Your task to perform on an android device: check android version Image 0: 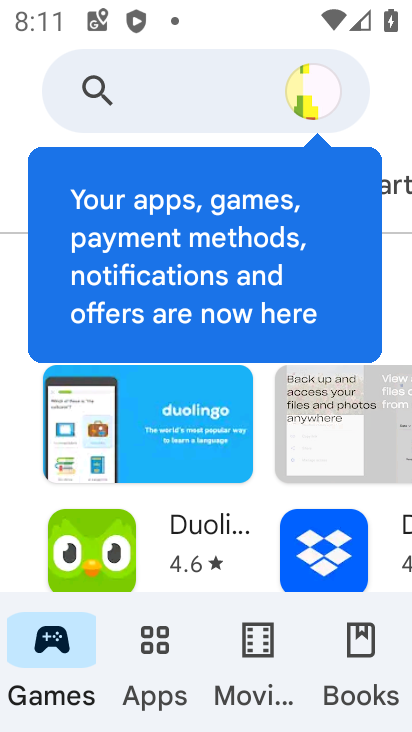
Step 0: press home button
Your task to perform on an android device: check android version Image 1: 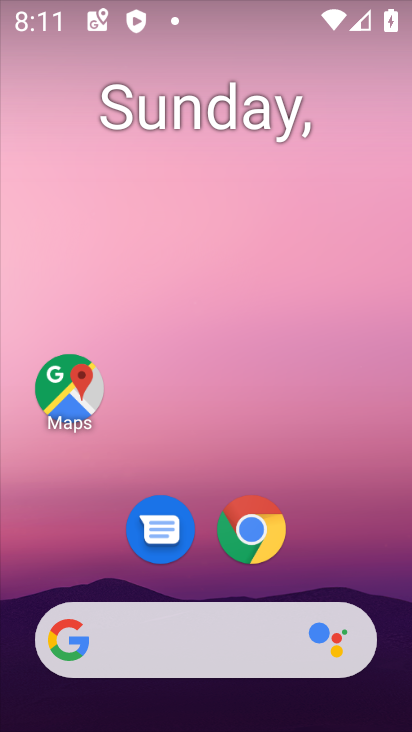
Step 1: drag from (348, 576) to (358, 140)
Your task to perform on an android device: check android version Image 2: 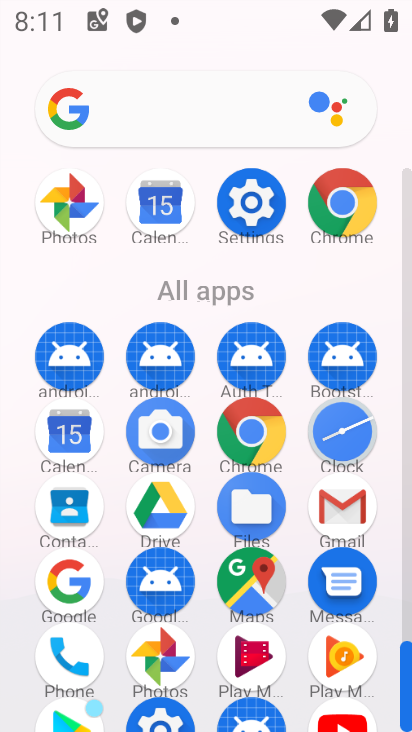
Step 2: click (253, 204)
Your task to perform on an android device: check android version Image 3: 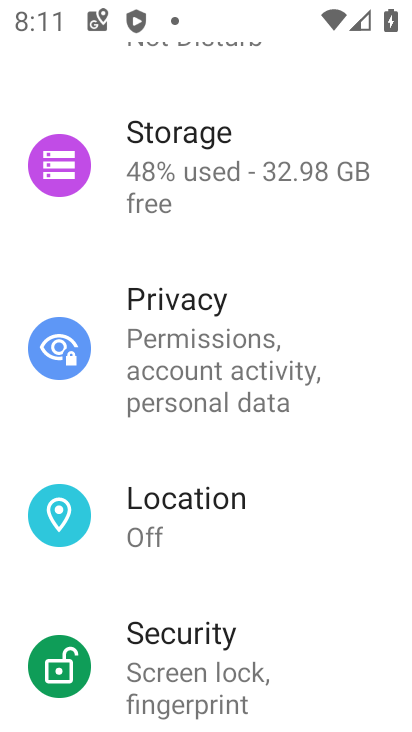
Step 3: drag from (294, 663) to (310, 259)
Your task to perform on an android device: check android version Image 4: 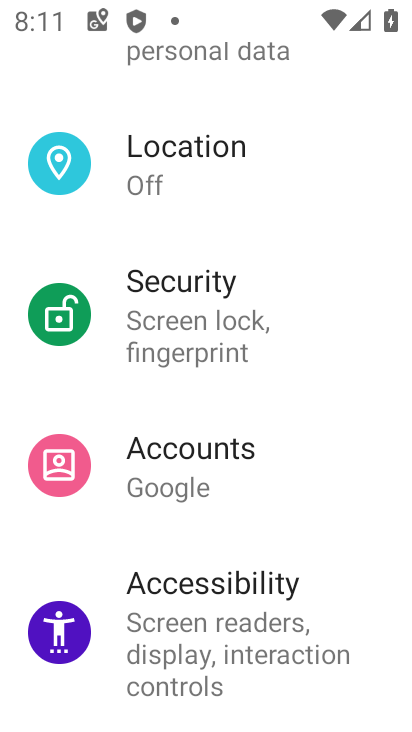
Step 4: drag from (365, 550) to (358, 94)
Your task to perform on an android device: check android version Image 5: 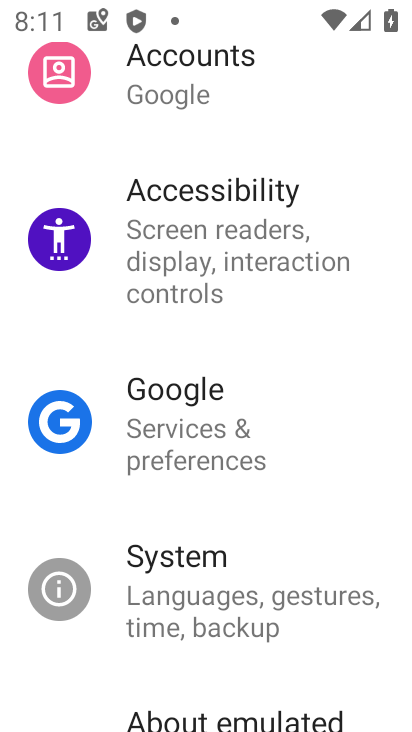
Step 5: drag from (295, 655) to (335, 264)
Your task to perform on an android device: check android version Image 6: 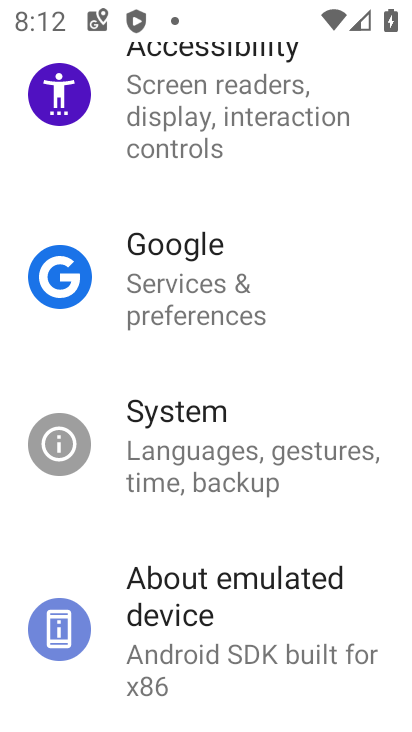
Step 6: drag from (230, 285) to (195, 576)
Your task to perform on an android device: check android version Image 7: 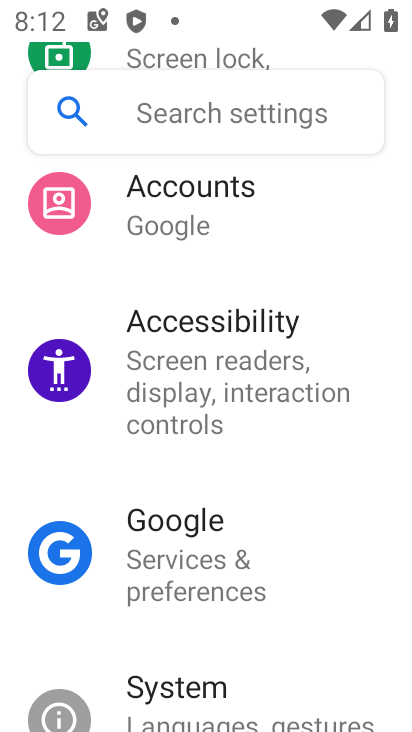
Step 7: drag from (310, 293) to (273, 647)
Your task to perform on an android device: check android version Image 8: 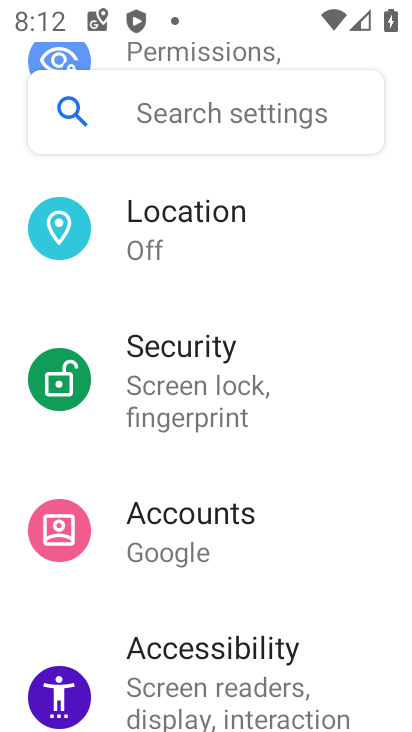
Step 8: drag from (240, 616) to (268, 233)
Your task to perform on an android device: check android version Image 9: 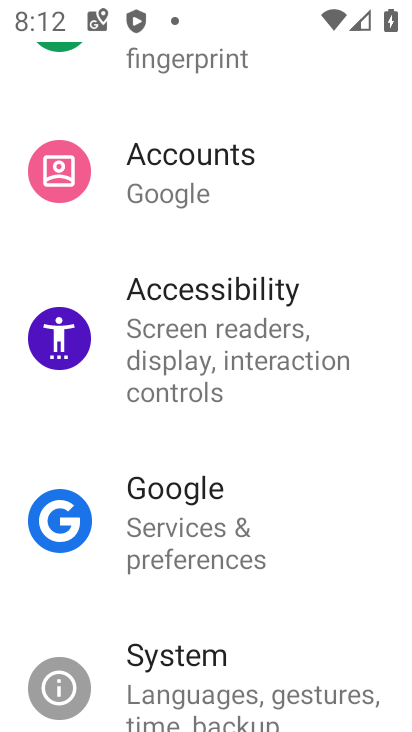
Step 9: drag from (244, 657) to (295, 288)
Your task to perform on an android device: check android version Image 10: 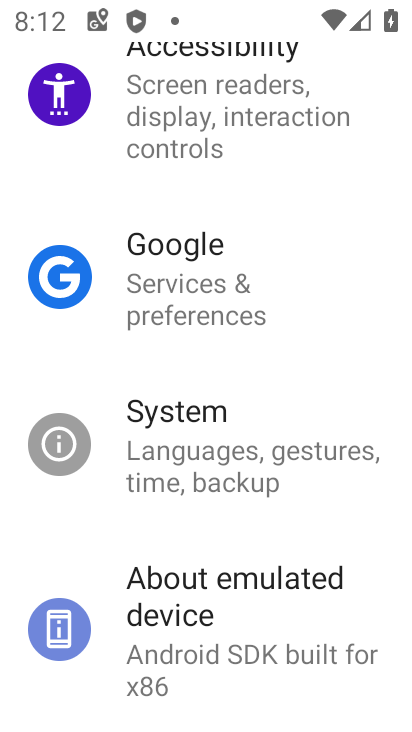
Step 10: click (232, 597)
Your task to perform on an android device: check android version Image 11: 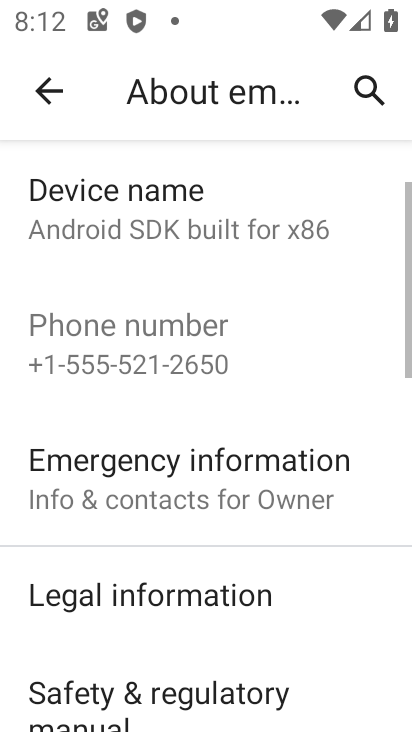
Step 11: drag from (290, 633) to (335, 320)
Your task to perform on an android device: check android version Image 12: 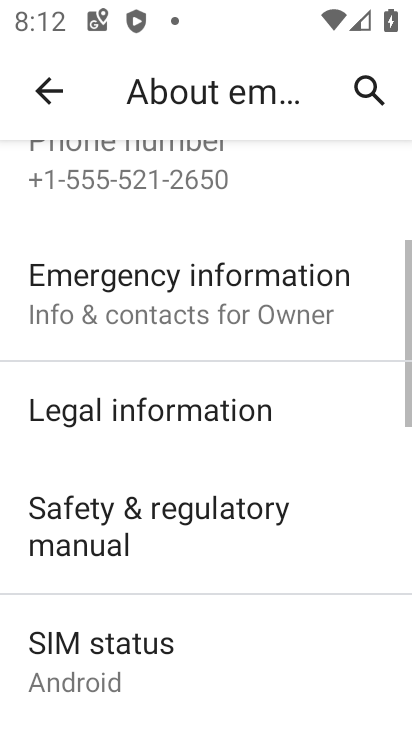
Step 12: drag from (316, 655) to (342, 306)
Your task to perform on an android device: check android version Image 13: 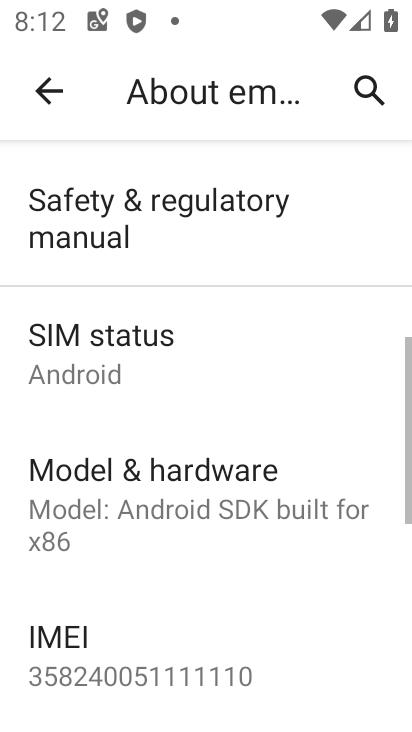
Step 13: drag from (283, 615) to (323, 236)
Your task to perform on an android device: check android version Image 14: 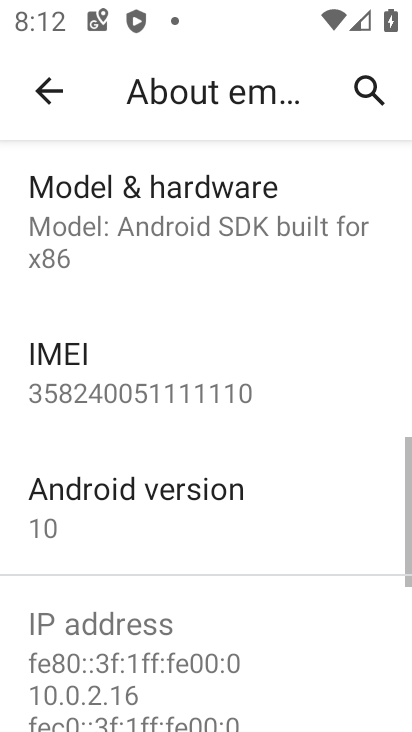
Step 14: click (218, 517)
Your task to perform on an android device: check android version Image 15: 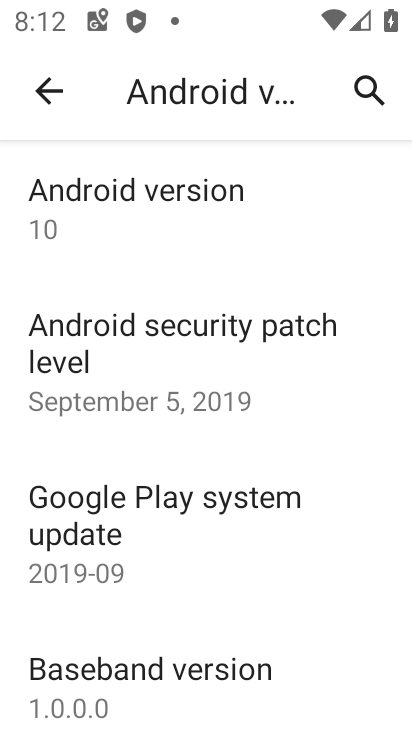
Step 15: task complete